Your task to perform on an android device: turn off location Image 0: 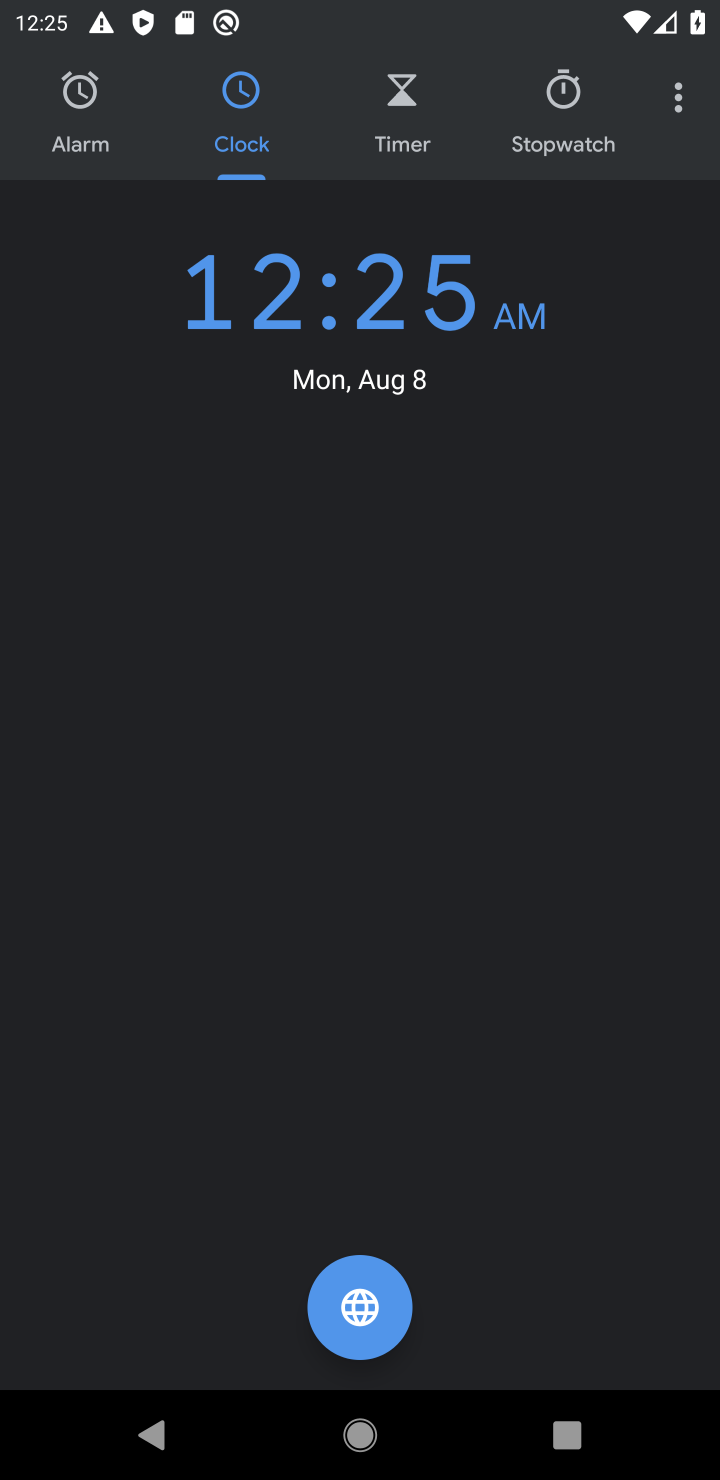
Step 0: press home button
Your task to perform on an android device: turn off location Image 1: 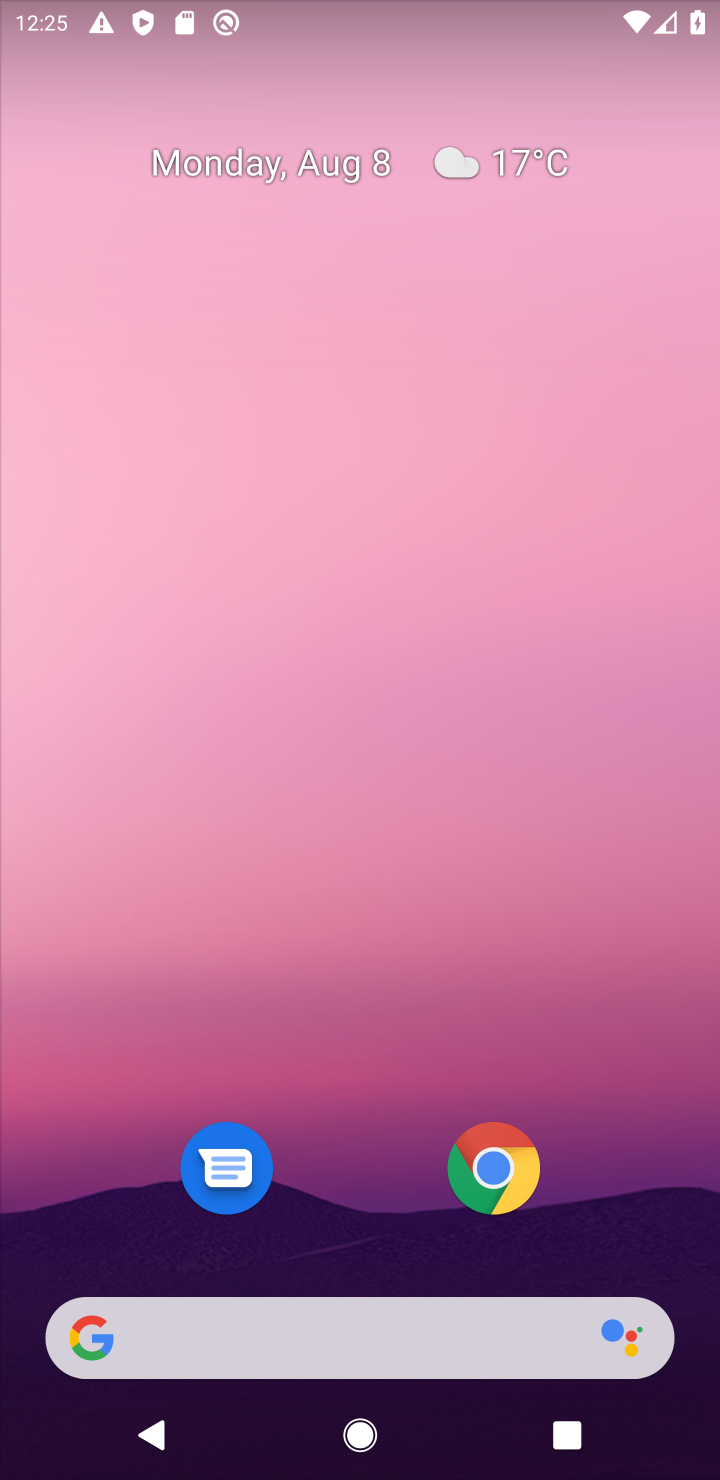
Step 1: drag from (190, 1086) to (479, 741)
Your task to perform on an android device: turn off location Image 2: 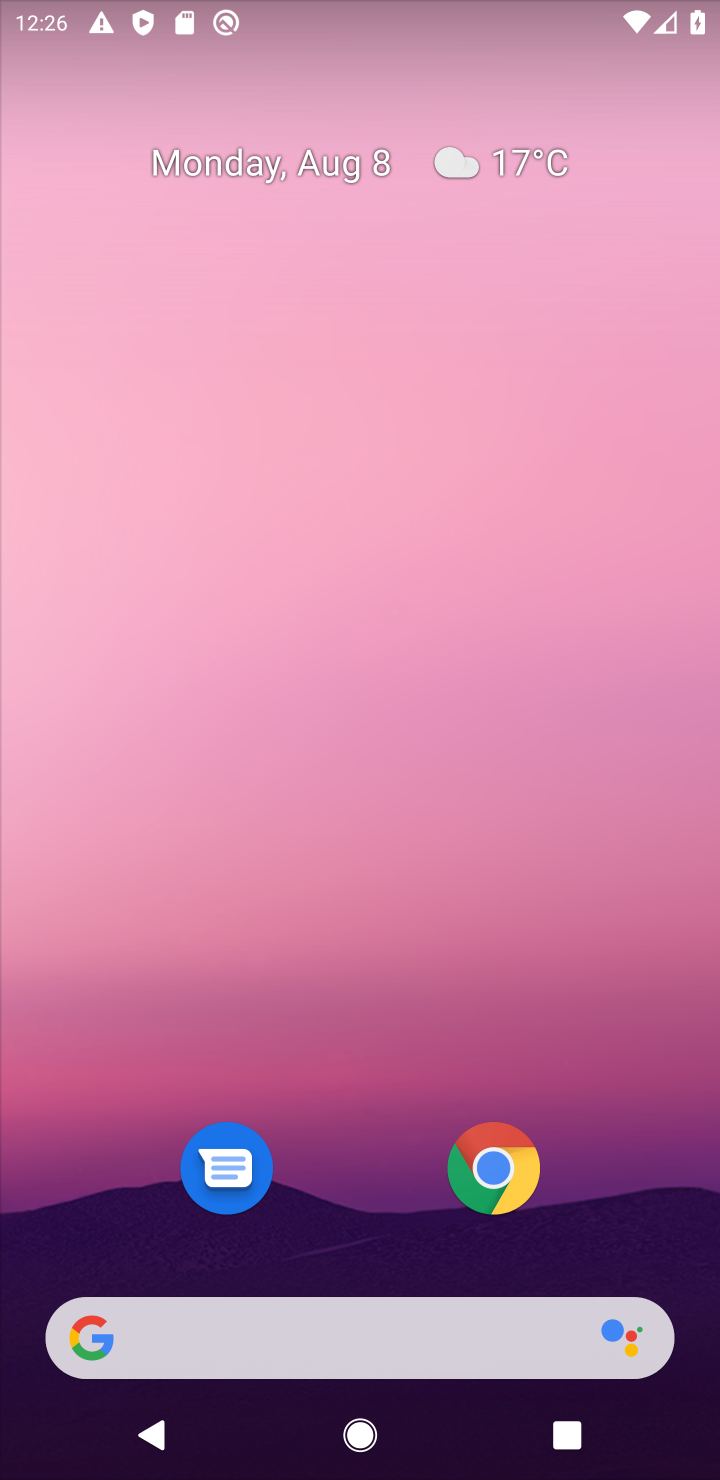
Step 2: drag from (82, 1437) to (475, 164)
Your task to perform on an android device: turn off location Image 3: 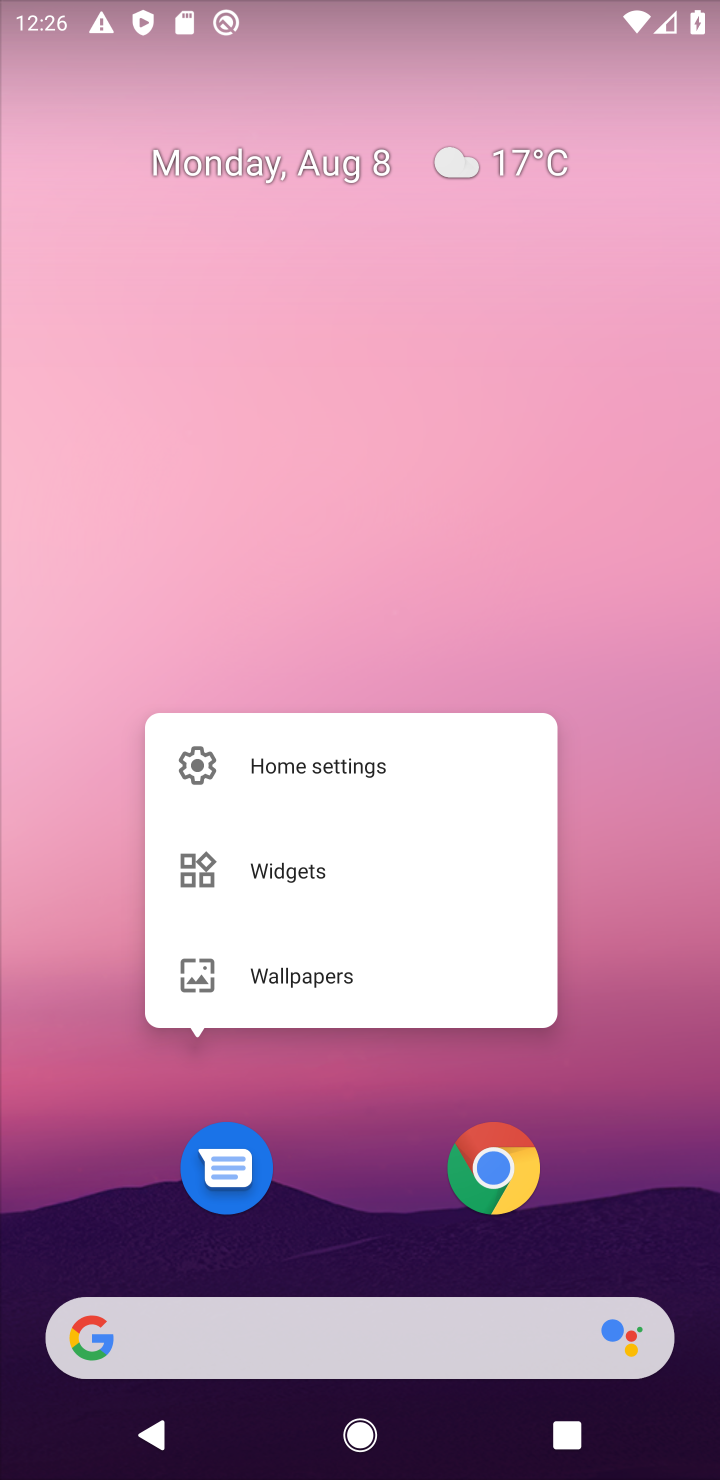
Step 3: drag from (54, 1412) to (544, 253)
Your task to perform on an android device: turn off location Image 4: 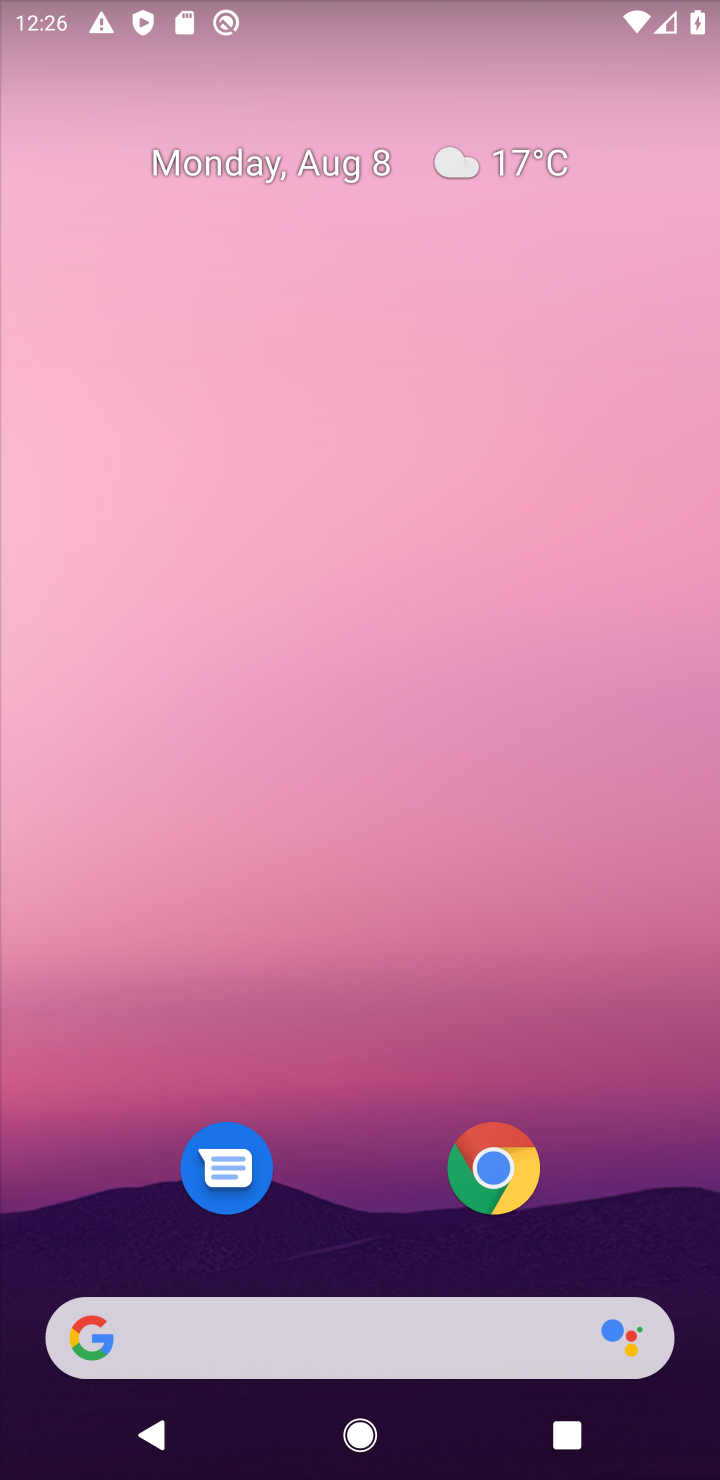
Step 4: drag from (81, 1385) to (561, 366)
Your task to perform on an android device: turn off location Image 5: 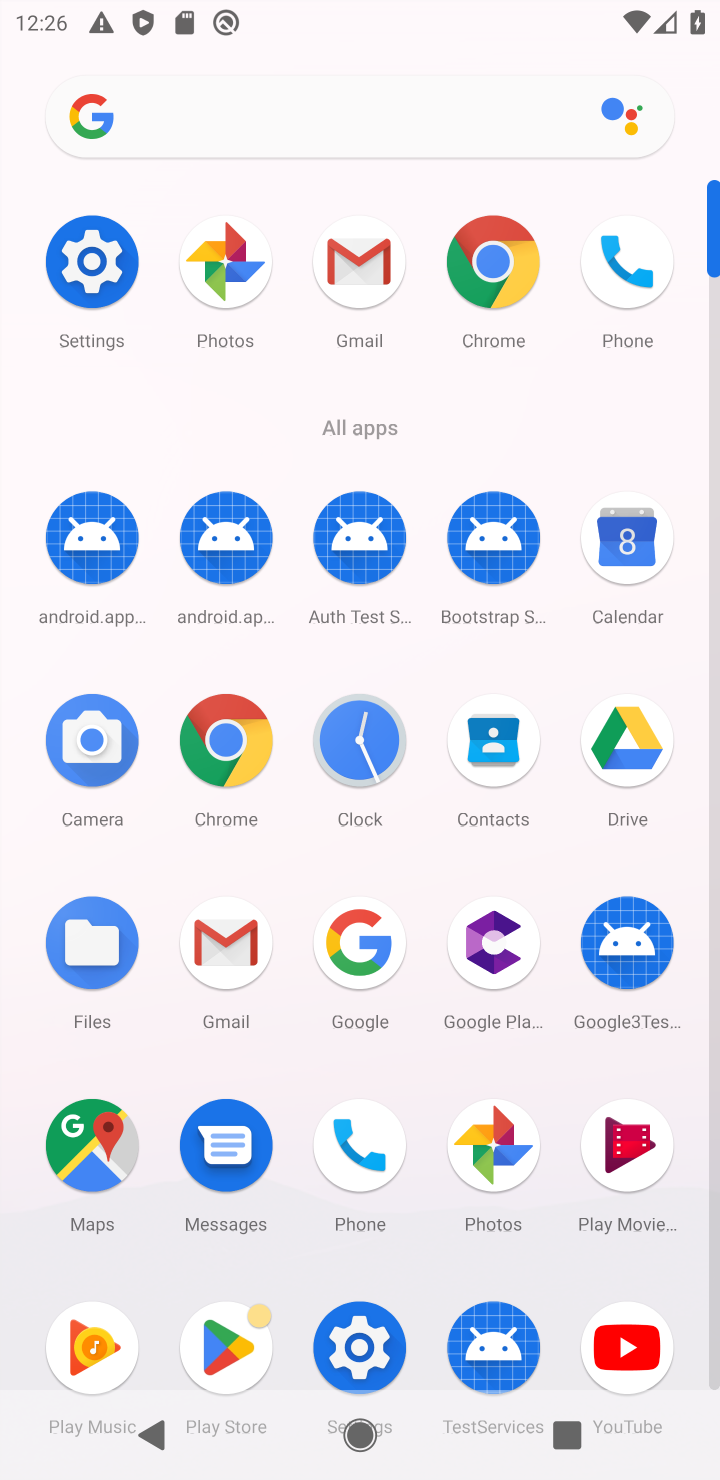
Step 5: click (364, 1365)
Your task to perform on an android device: turn off location Image 6: 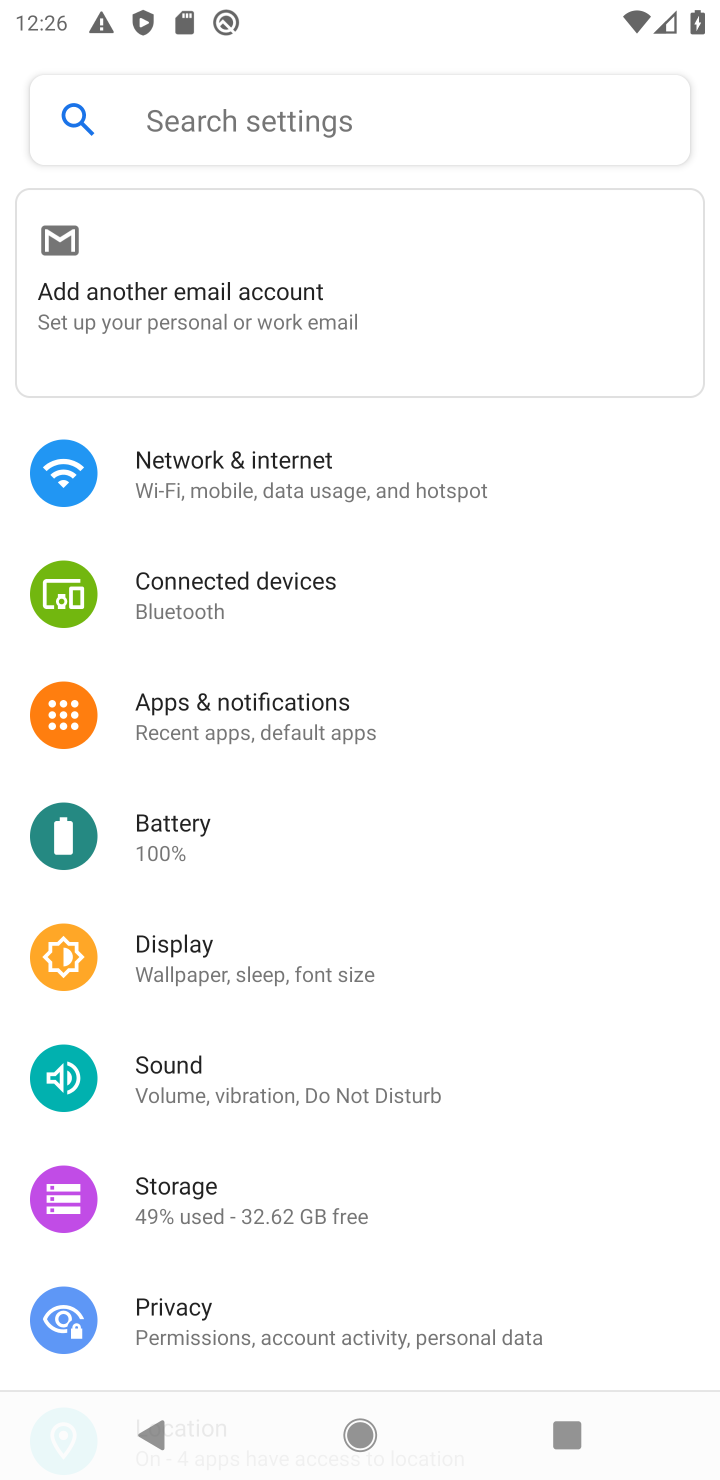
Step 6: drag from (677, 1154) to (491, 322)
Your task to perform on an android device: turn off location Image 7: 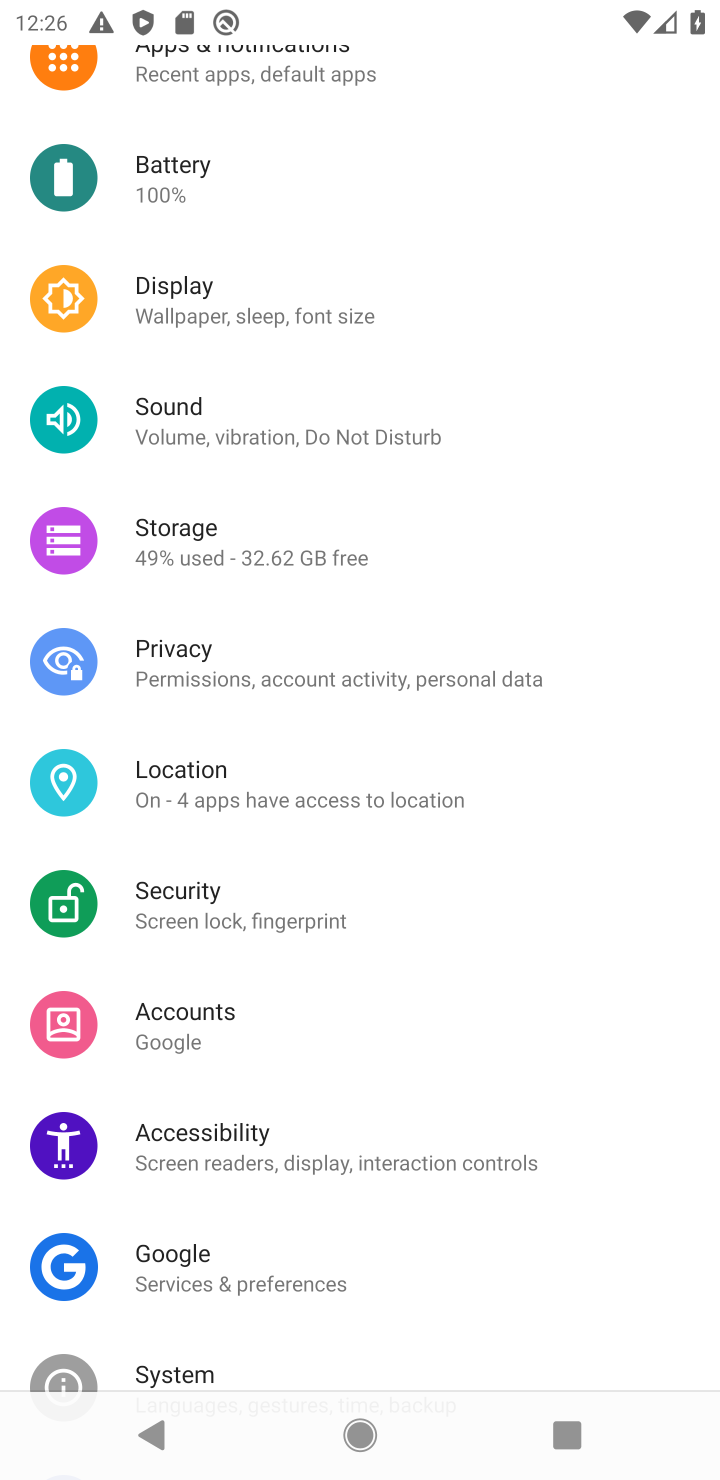
Step 7: click (216, 759)
Your task to perform on an android device: turn off location Image 8: 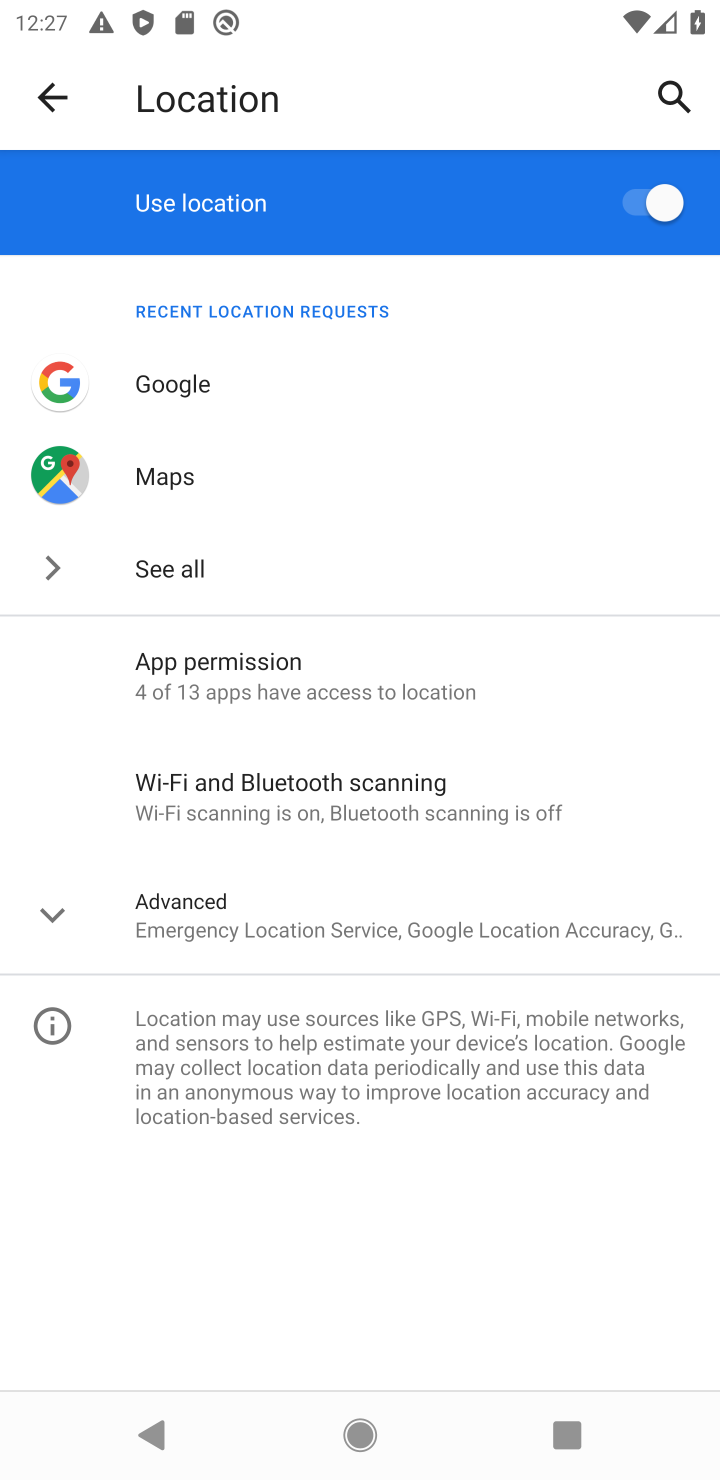
Step 8: click (669, 224)
Your task to perform on an android device: turn off location Image 9: 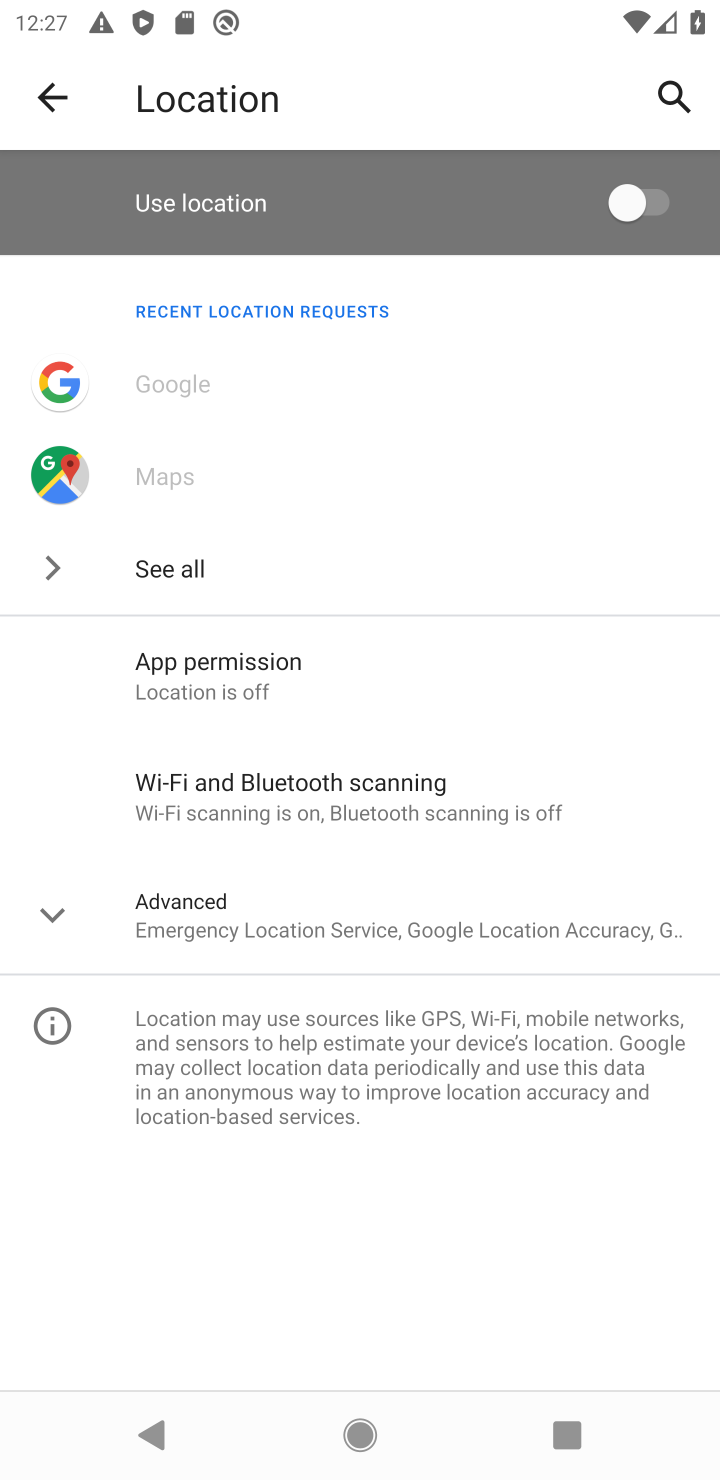
Step 9: task complete